Your task to perform on an android device: show emergency info Image 0: 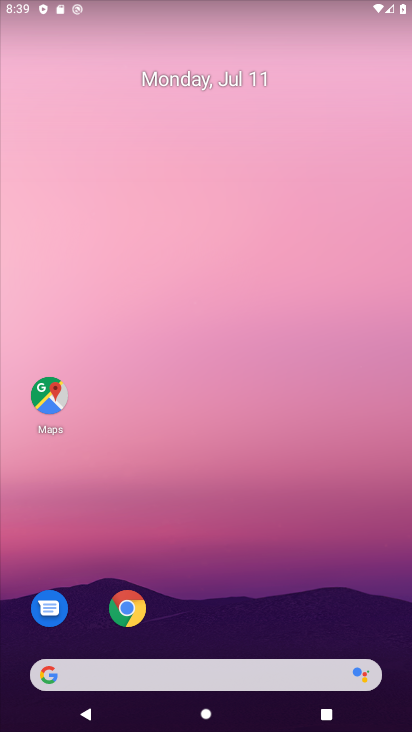
Step 0: drag from (190, 550) to (183, 57)
Your task to perform on an android device: show emergency info Image 1: 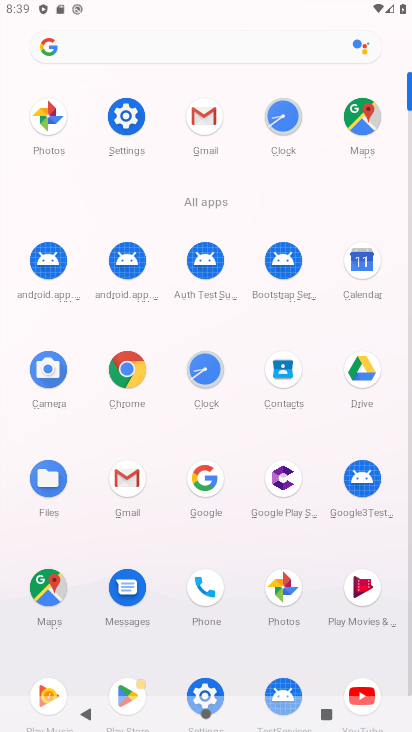
Step 1: click (129, 119)
Your task to perform on an android device: show emergency info Image 2: 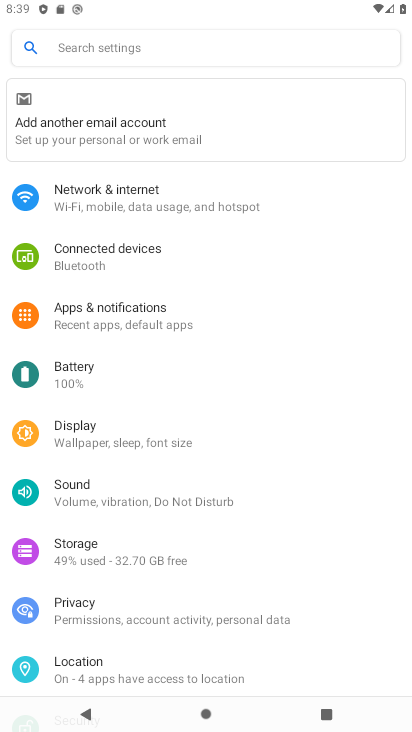
Step 2: drag from (146, 605) to (184, 277)
Your task to perform on an android device: show emergency info Image 3: 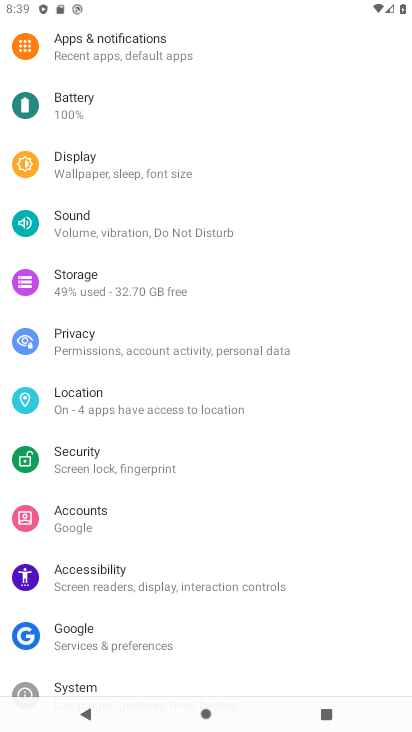
Step 3: drag from (130, 603) to (150, 271)
Your task to perform on an android device: show emergency info Image 4: 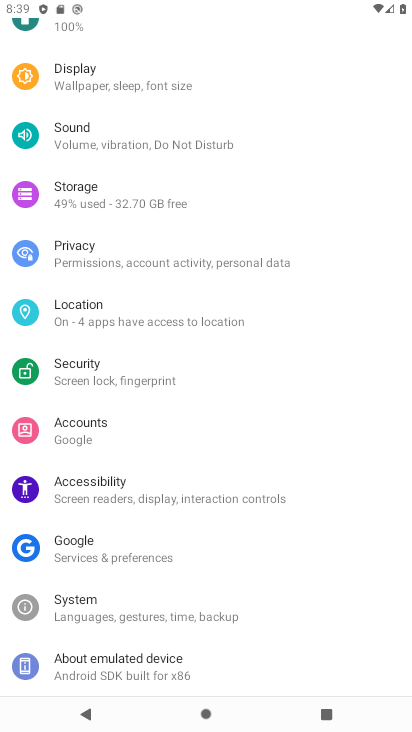
Step 4: click (99, 666)
Your task to perform on an android device: show emergency info Image 5: 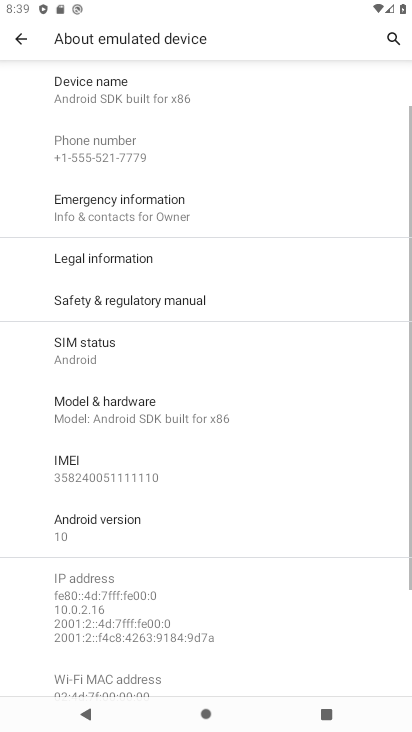
Step 5: click (123, 197)
Your task to perform on an android device: show emergency info Image 6: 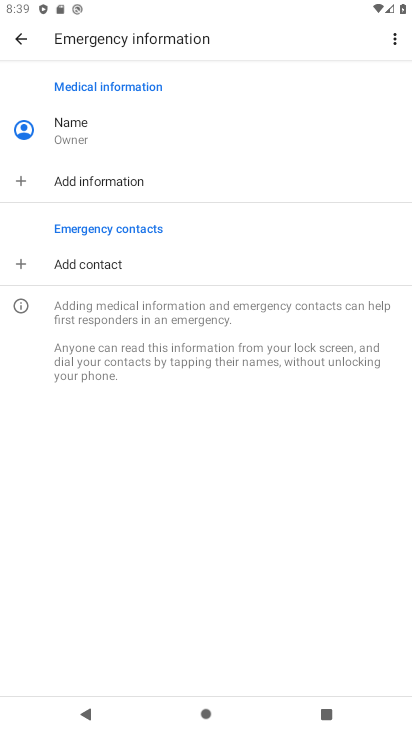
Step 6: task complete